Your task to perform on an android device: Open the map Image 0: 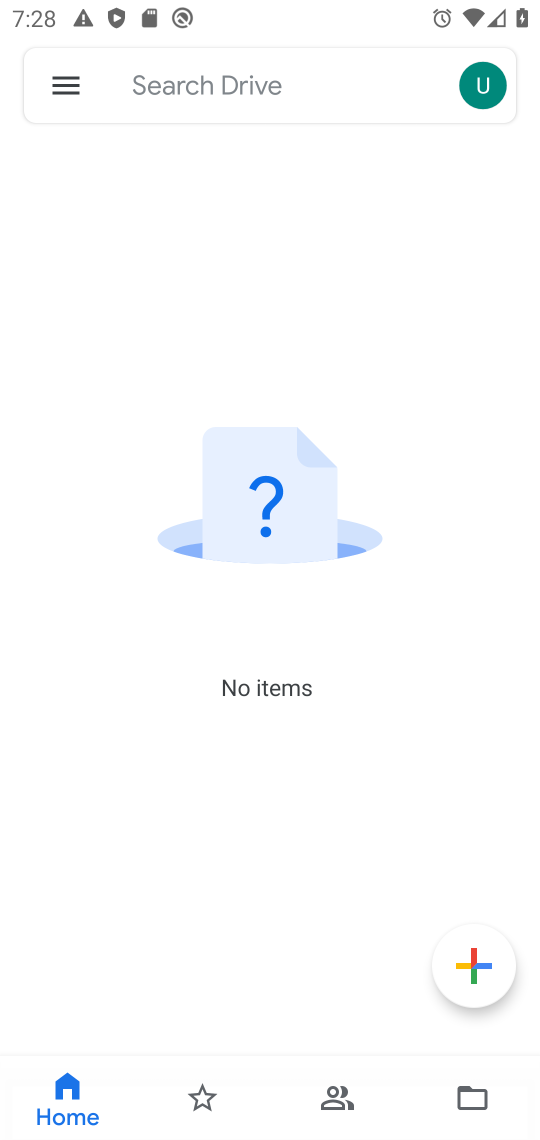
Step 0: press home button
Your task to perform on an android device: Open the map Image 1: 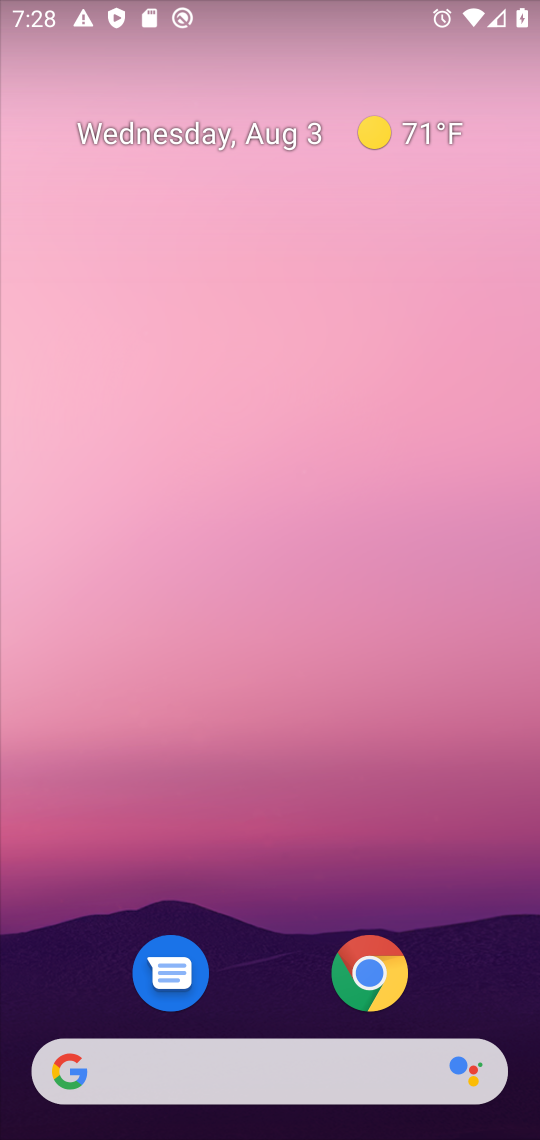
Step 1: drag from (258, 957) to (258, 13)
Your task to perform on an android device: Open the map Image 2: 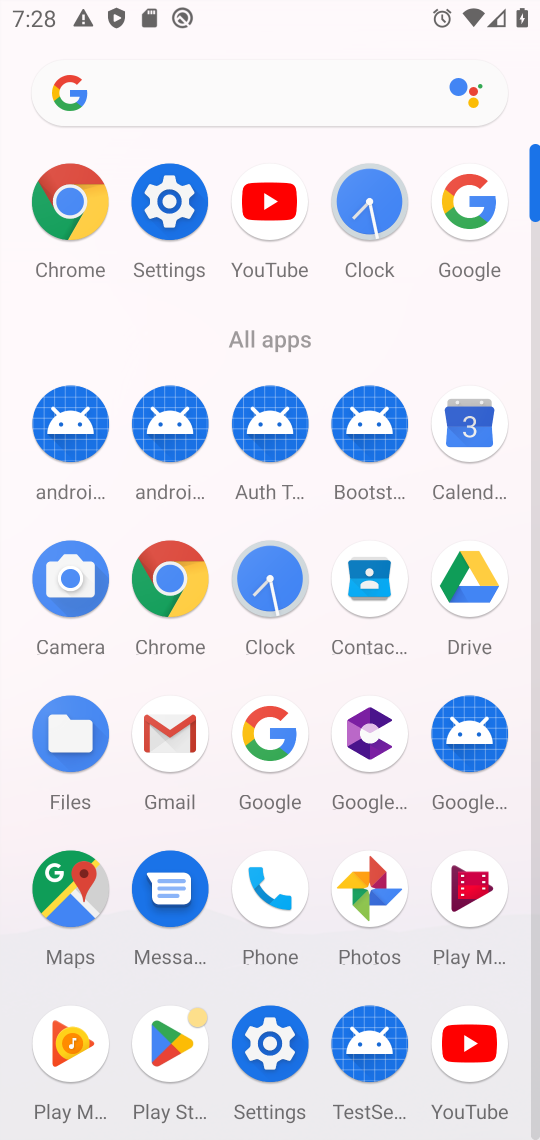
Step 2: click (60, 902)
Your task to perform on an android device: Open the map Image 3: 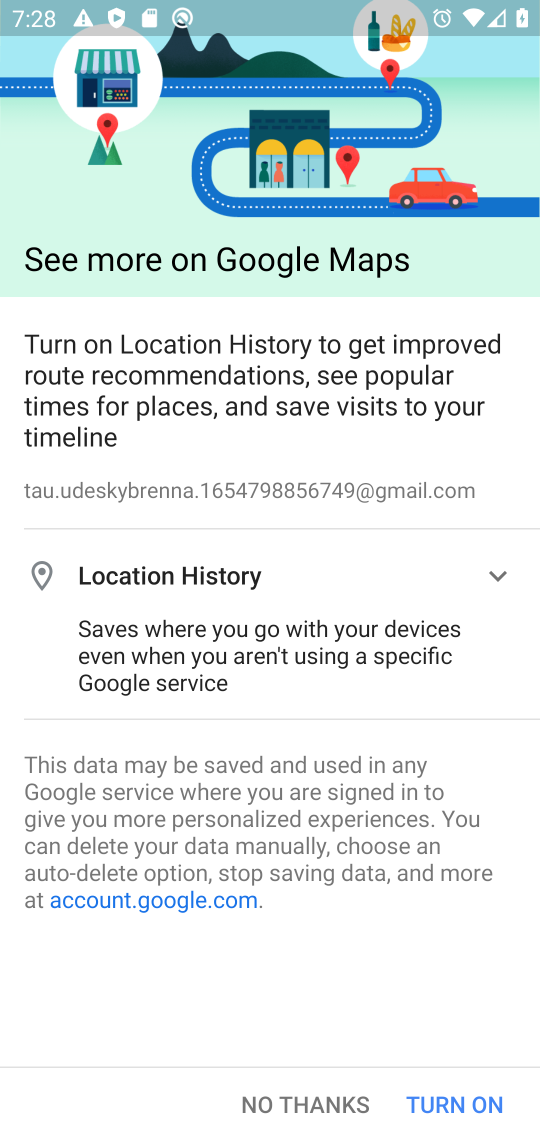
Step 3: task complete